Your task to perform on an android device: Look up the book "The Girl on the Train". Image 0: 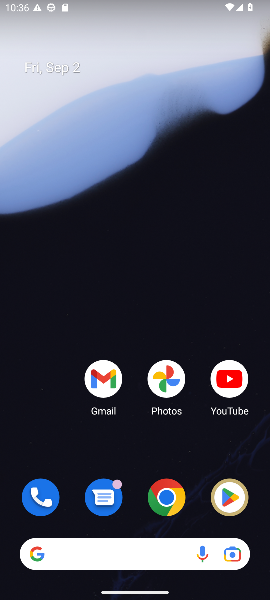
Step 0: click (180, 498)
Your task to perform on an android device: Look up the book "The Girl on the Train". Image 1: 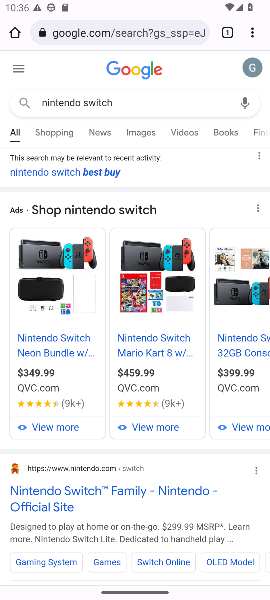
Step 1: click (125, 27)
Your task to perform on an android device: Look up the book "The Girl on the Train". Image 2: 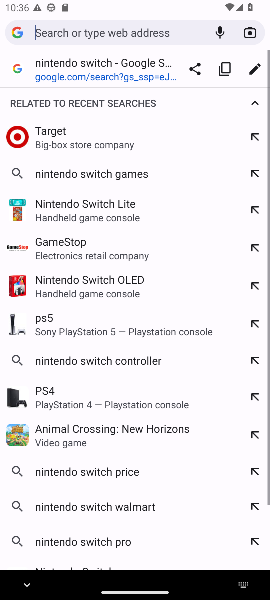
Step 2: type "The Girl on the Train"
Your task to perform on an android device: Look up the book "The Girl on the Train". Image 3: 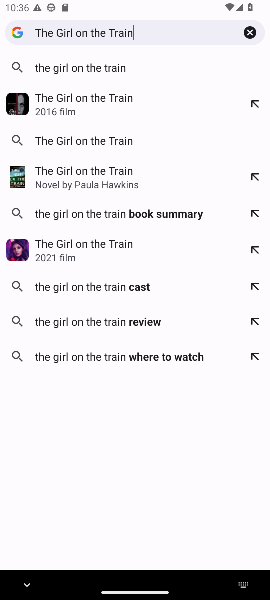
Step 3: click (86, 69)
Your task to perform on an android device: Look up the book "The Girl on the Train". Image 4: 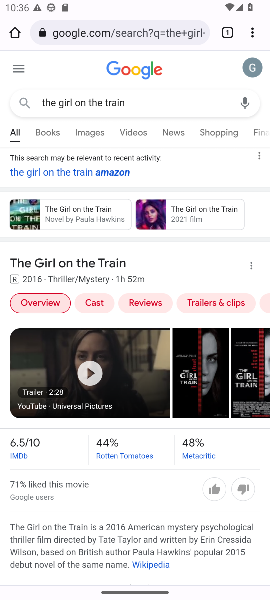
Step 4: task complete